Your task to perform on an android device: turn off airplane mode Image 0: 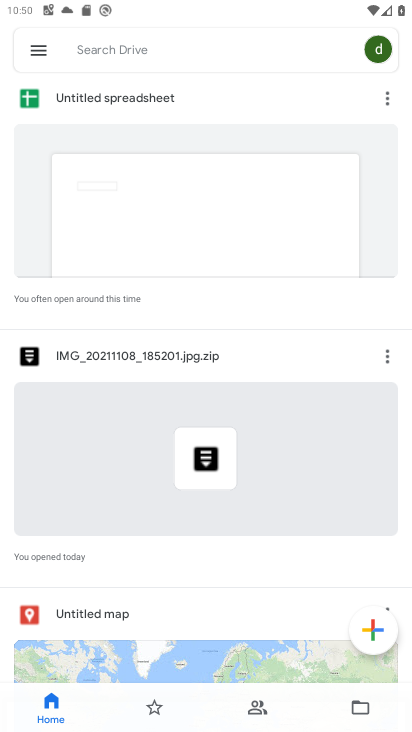
Step 0: press home button
Your task to perform on an android device: turn off airplane mode Image 1: 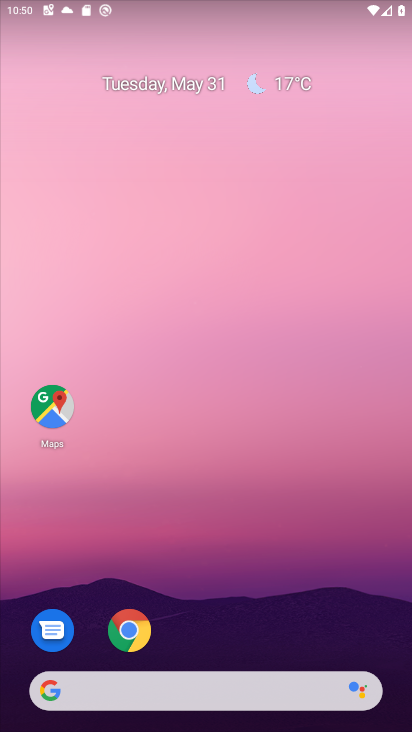
Step 1: drag from (266, 576) to (208, 154)
Your task to perform on an android device: turn off airplane mode Image 2: 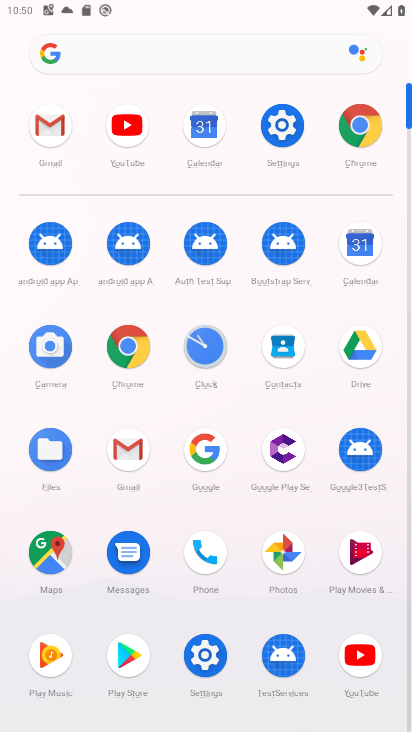
Step 2: click (266, 115)
Your task to perform on an android device: turn off airplane mode Image 3: 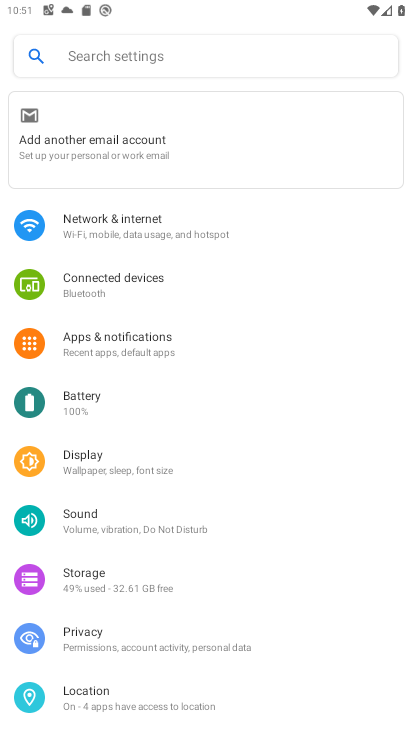
Step 3: click (131, 212)
Your task to perform on an android device: turn off airplane mode Image 4: 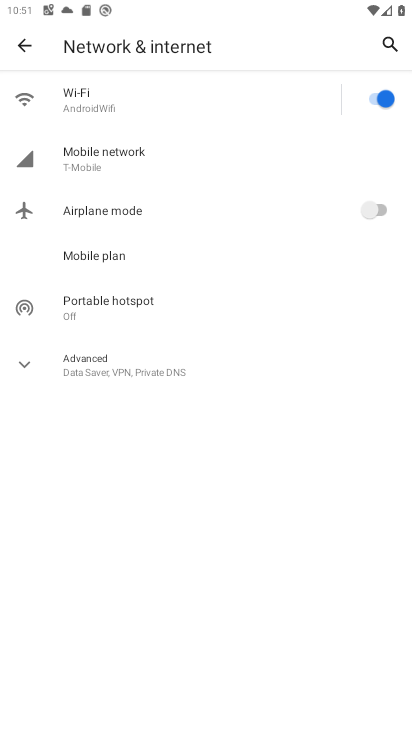
Step 4: task complete